Your task to perform on an android device: turn on bluetooth scan Image 0: 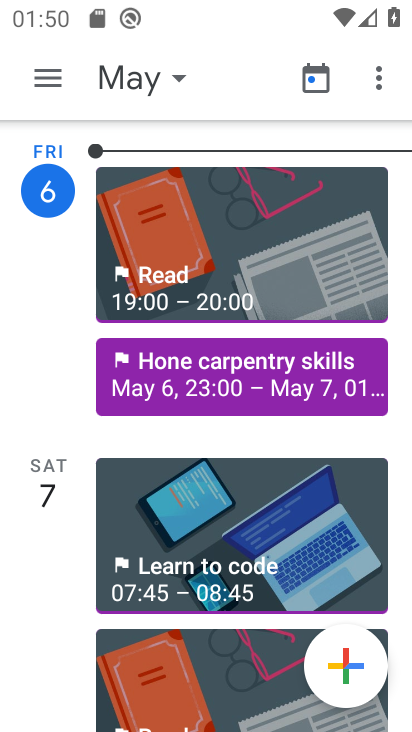
Step 0: press home button
Your task to perform on an android device: turn on bluetooth scan Image 1: 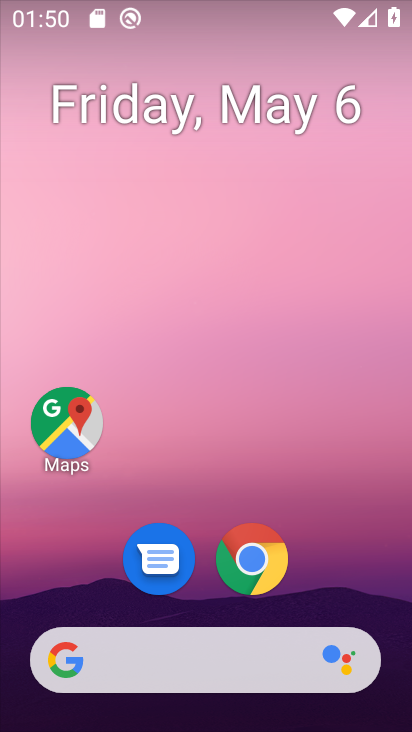
Step 1: drag from (364, 487) to (376, 5)
Your task to perform on an android device: turn on bluetooth scan Image 2: 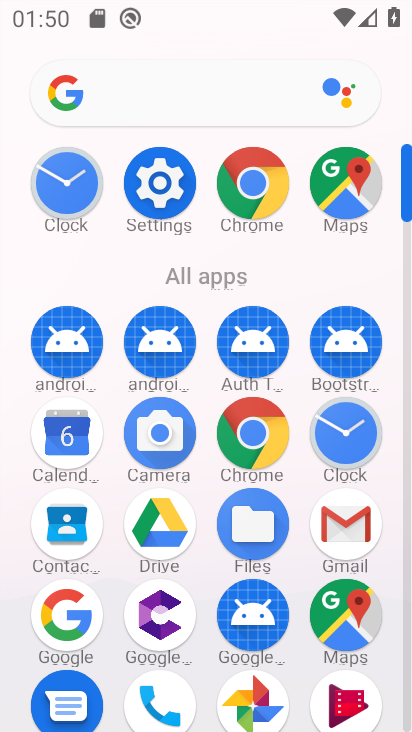
Step 2: click (153, 198)
Your task to perform on an android device: turn on bluetooth scan Image 3: 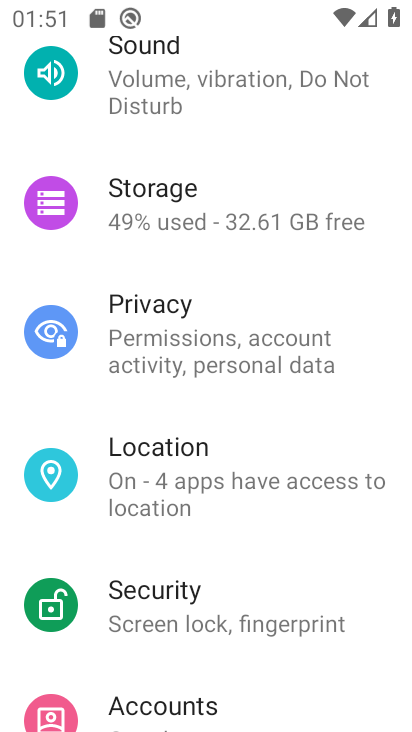
Step 3: drag from (247, 662) to (261, 693)
Your task to perform on an android device: turn on bluetooth scan Image 4: 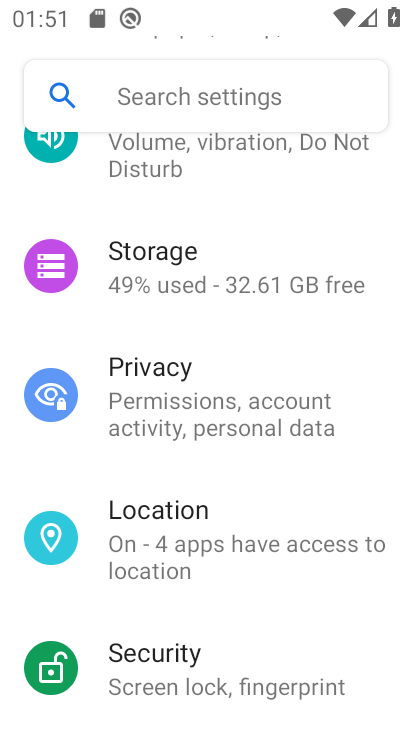
Step 4: click (264, 562)
Your task to perform on an android device: turn on bluetooth scan Image 5: 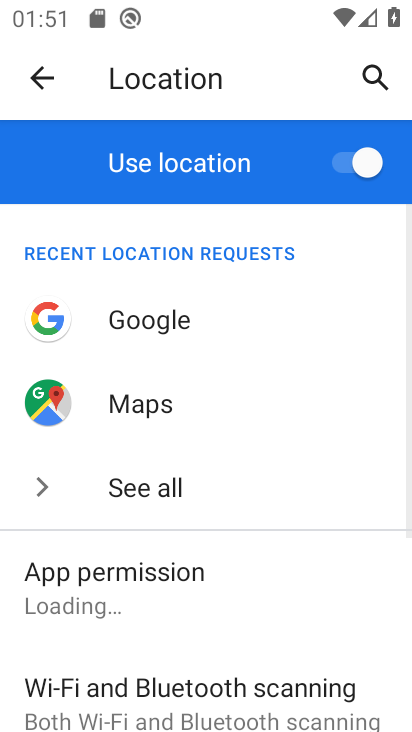
Step 5: drag from (305, 679) to (325, 221)
Your task to perform on an android device: turn on bluetooth scan Image 6: 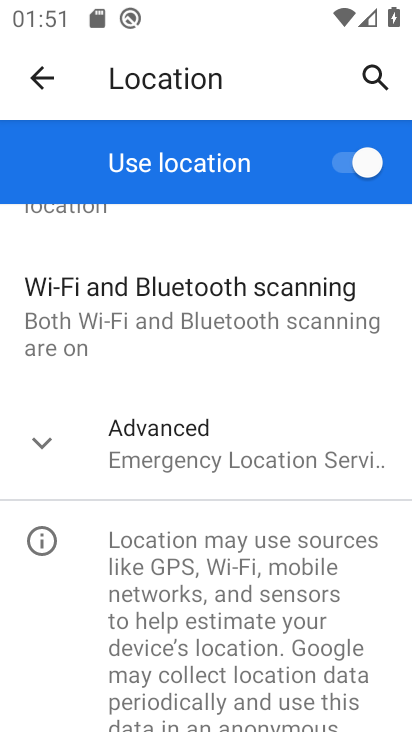
Step 6: click (312, 293)
Your task to perform on an android device: turn on bluetooth scan Image 7: 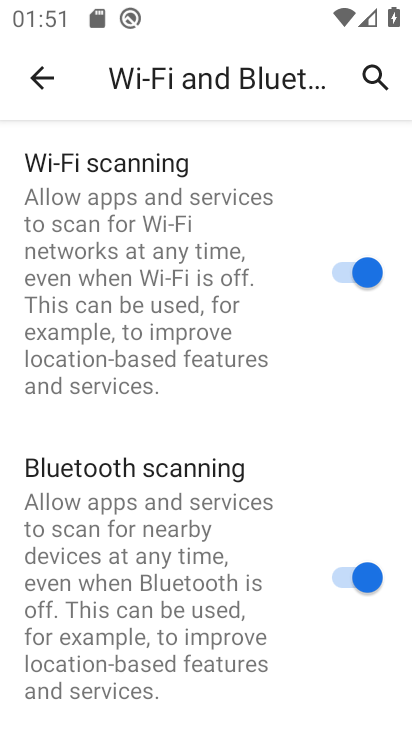
Step 7: task complete